Your task to perform on an android device: set an alarm Image 0: 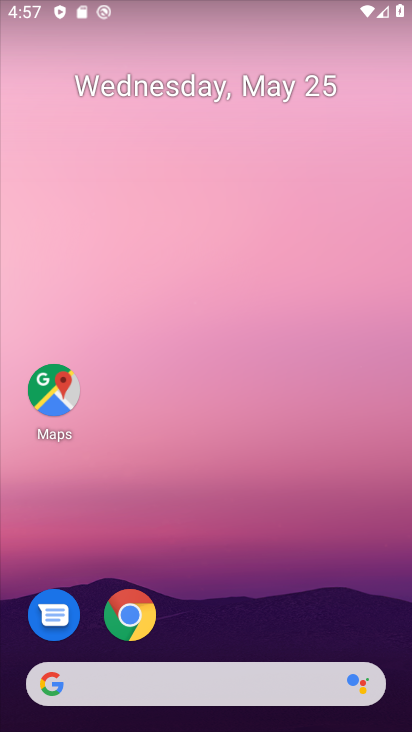
Step 0: drag from (216, 576) to (237, 53)
Your task to perform on an android device: set an alarm Image 1: 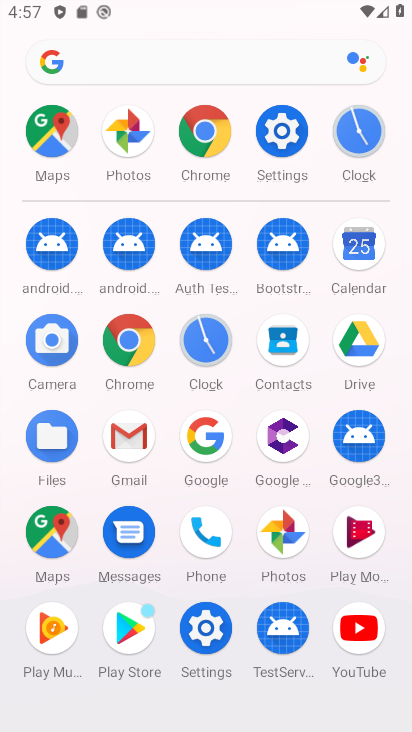
Step 1: click (194, 340)
Your task to perform on an android device: set an alarm Image 2: 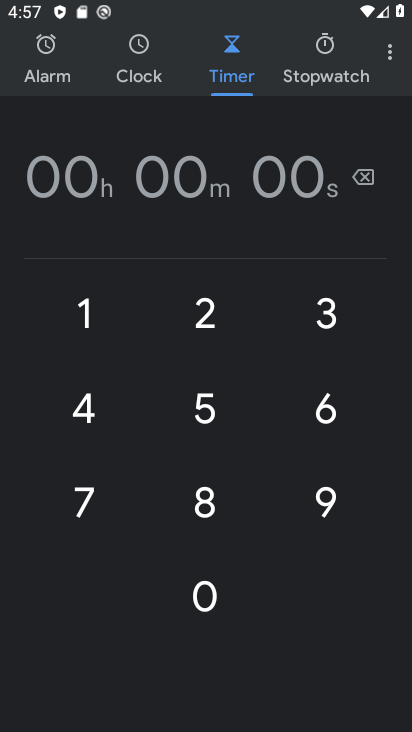
Step 2: click (75, 73)
Your task to perform on an android device: set an alarm Image 3: 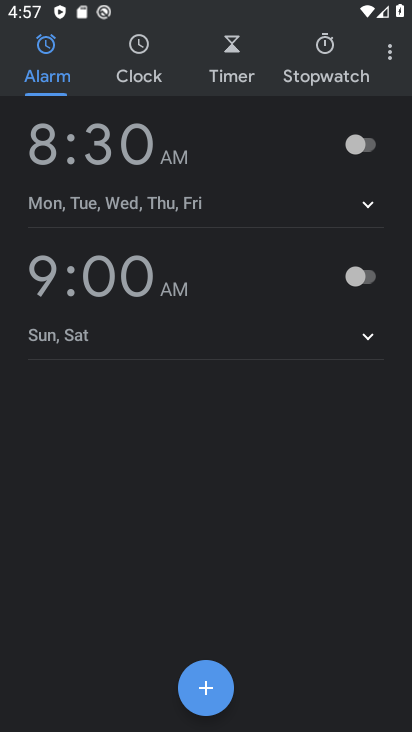
Step 3: click (214, 709)
Your task to perform on an android device: set an alarm Image 4: 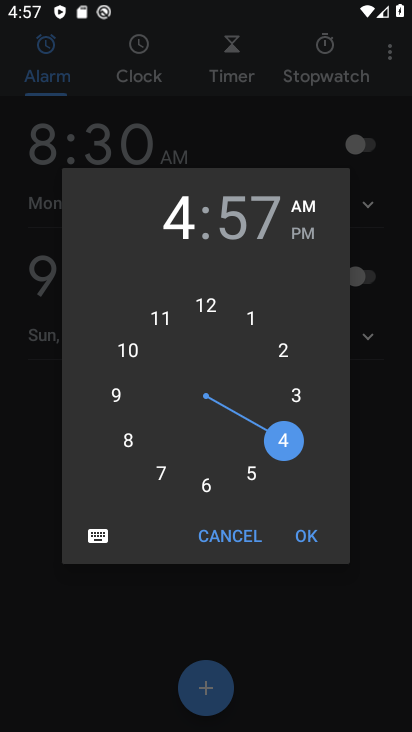
Step 4: click (307, 531)
Your task to perform on an android device: set an alarm Image 5: 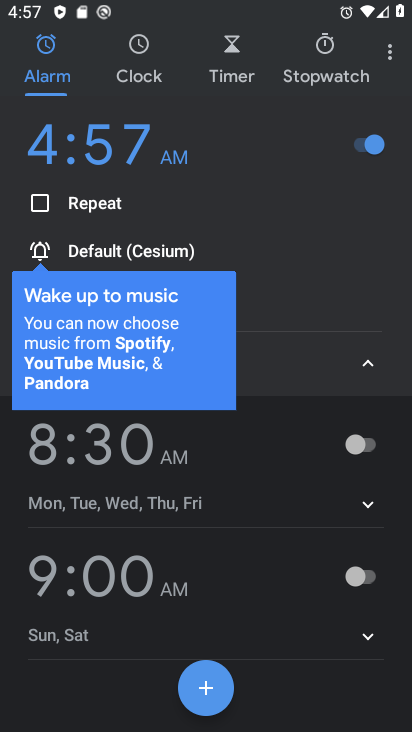
Step 5: task complete